Your task to perform on an android device: allow cookies in the chrome app Image 0: 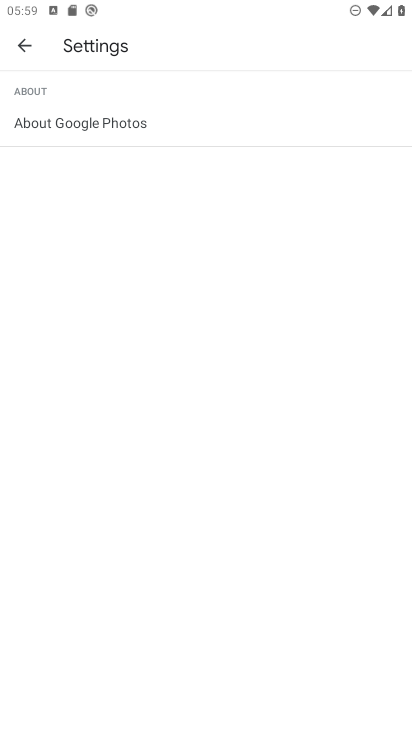
Step 0: press home button
Your task to perform on an android device: allow cookies in the chrome app Image 1: 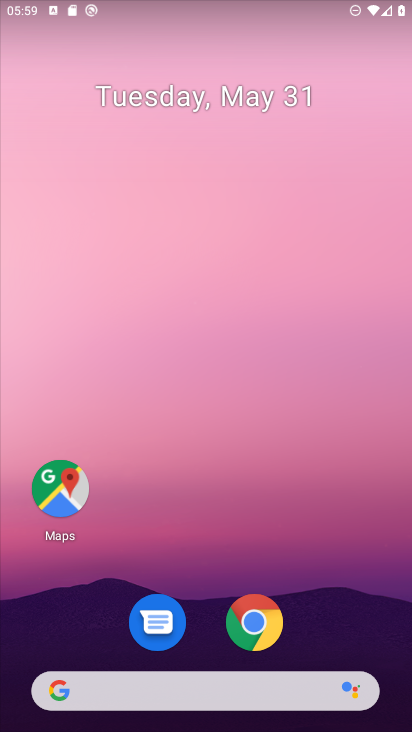
Step 1: drag from (224, 668) to (308, 2)
Your task to perform on an android device: allow cookies in the chrome app Image 2: 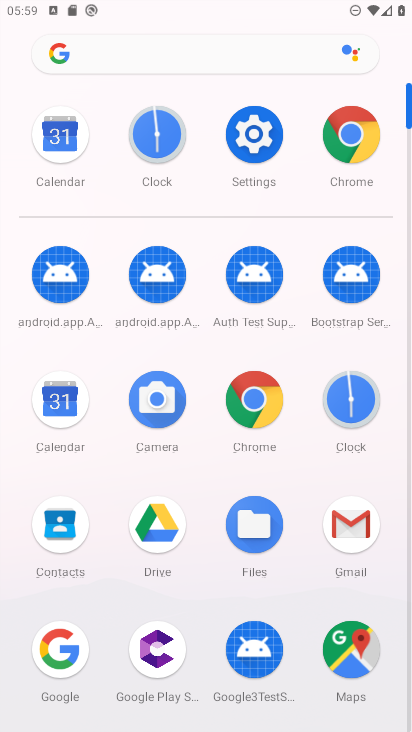
Step 2: click (260, 391)
Your task to perform on an android device: allow cookies in the chrome app Image 3: 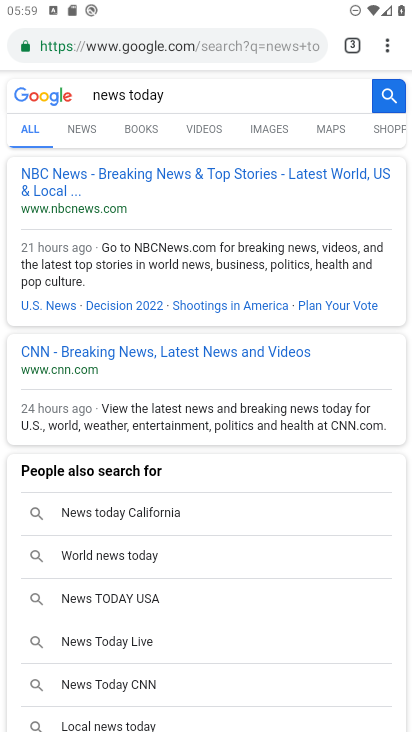
Step 3: drag from (385, 44) to (231, 503)
Your task to perform on an android device: allow cookies in the chrome app Image 4: 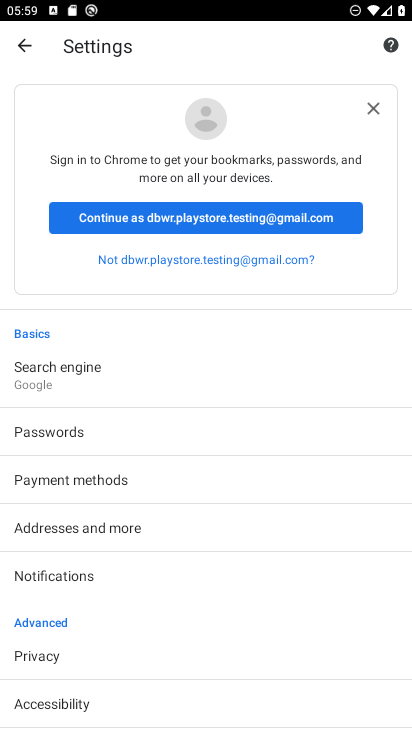
Step 4: drag from (191, 628) to (271, 228)
Your task to perform on an android device: allow cookies in the chrome app Image 5: 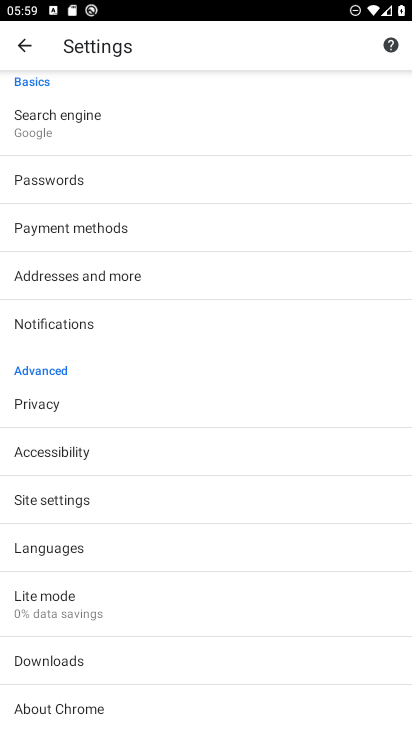
Step 5: click (88, 503)
Your task to perform on an android device: allow cookies in the chrome app Image 6: 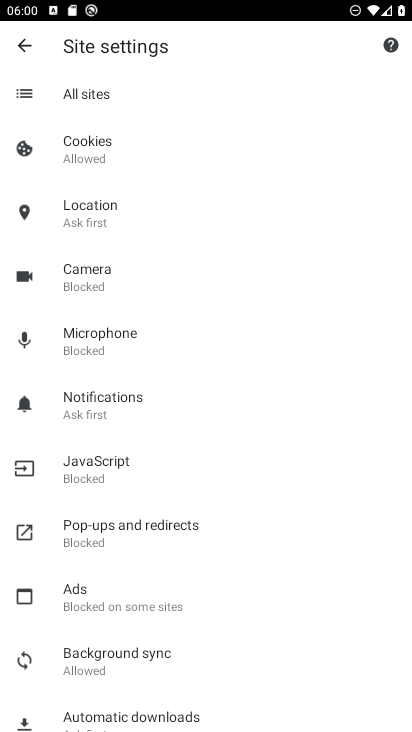
Step 6: click (88, 156)
Your task to perform on an android device: allow cookies in the chrome app Image 7: 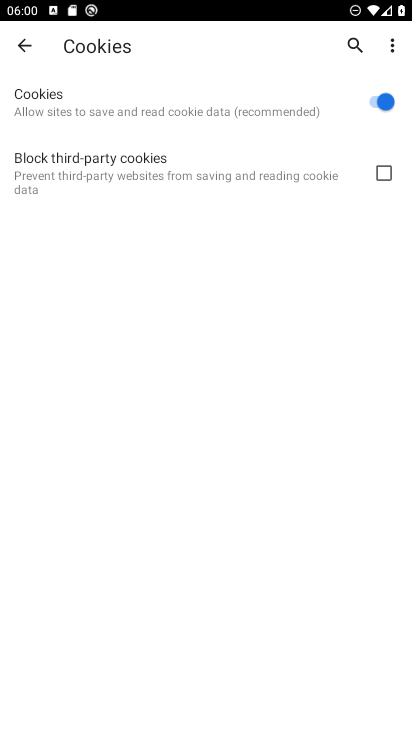
Step 7: task complete